Your task to perform on an android device: choose inbox layout in the gmail app Image 0: 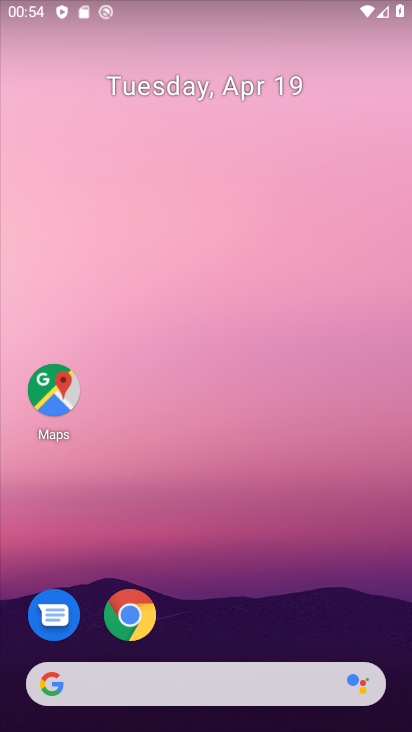
Step 0: press home button
Your task to perform on an android device: choose inbox layout in the gmail app Image 1: 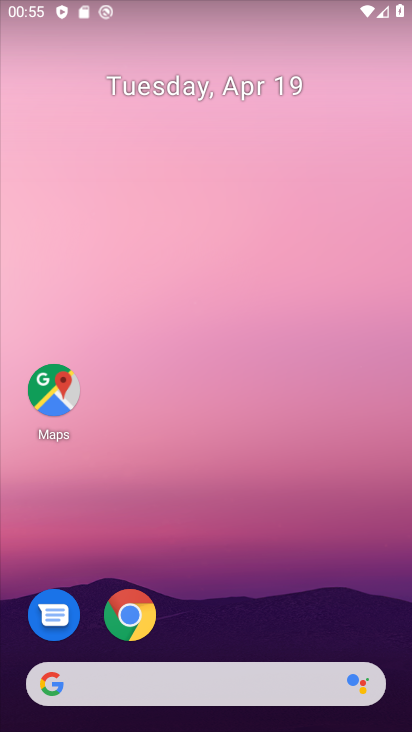
Step 1: drag from (255, 487) to (259, 308)
Your task to perform on an android device: choose inbox layout in the gmail app Image 2: 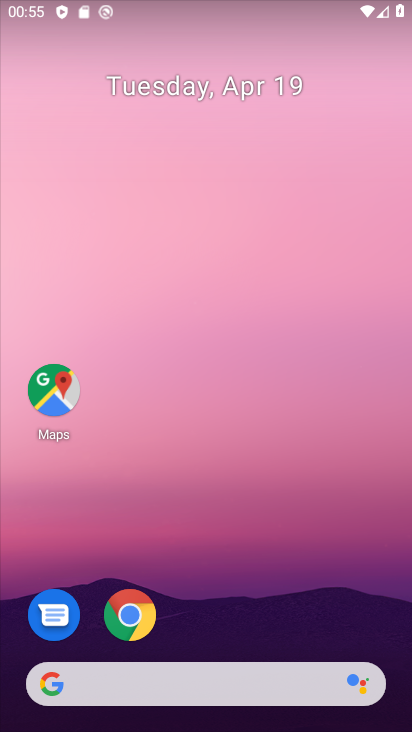
Step 2: drag from (261, 541) to (269, 155)
Your task to perform on an android device: choose inbox layout in the gmail app Image 3: 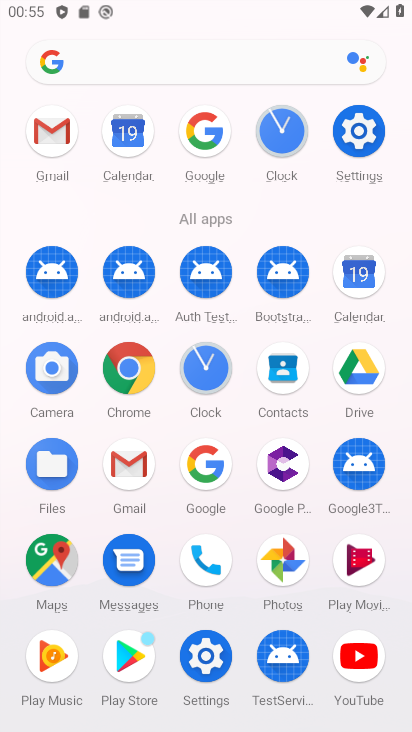
Step 3: click (136, 474)
Your task to perform on an android device: choose inbox layout in the gmail app Image 4: 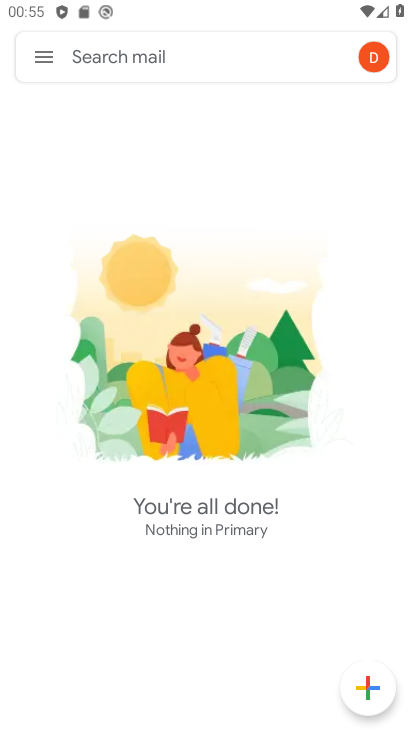
Step 4: click (36, 64)
Your task to perform on an android device: choose inbox layout in the gmail app Image 5: 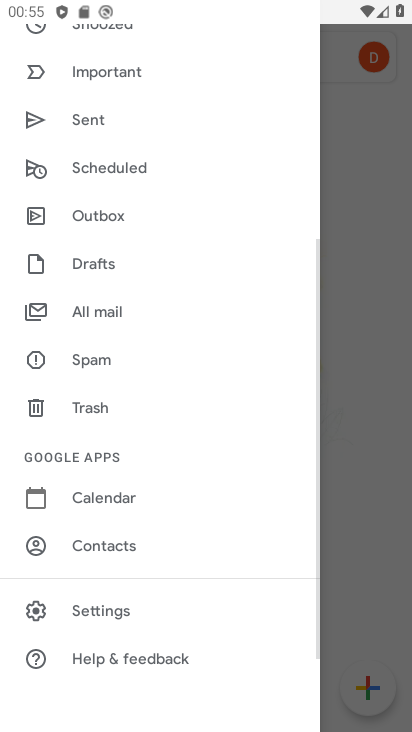
Step 5: drag from (127, 207) to (109, 603)
Your task to perform on an android device: choose inbox layout in the gmail app Image 6: 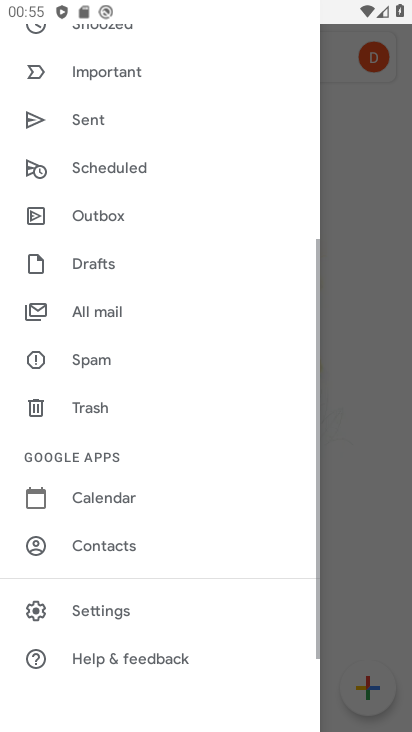
Step 6: drag from (173, 152) to (147, 518)
Your task to perform on an android device: choose inbox layout in the gmail app Image 7: 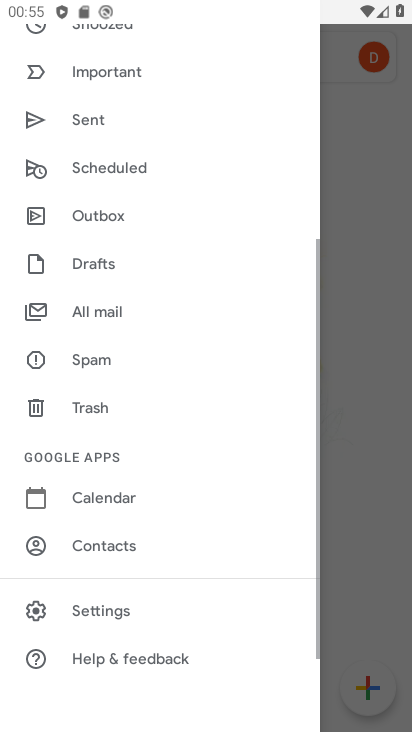
Step 7: drag from (105, 169) to (85, 537)
Your task to perform on an android device: choose inbox layout in the gmail app Image 8: 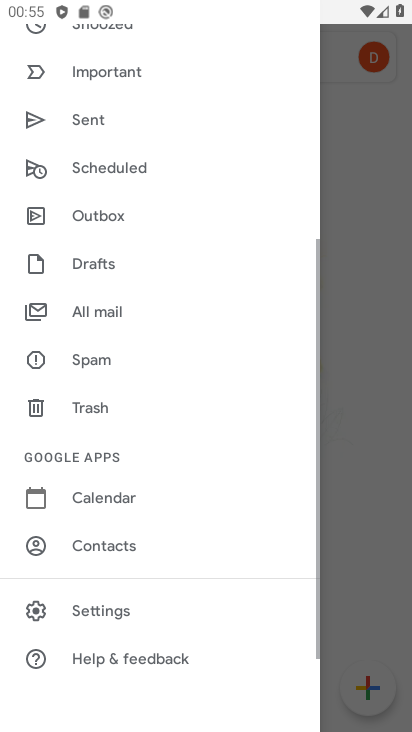
Step 8: drag from (226, 386) to (159, 688)
Your task to perform on an android device: choose inbox layout in the gmail app Image 9: 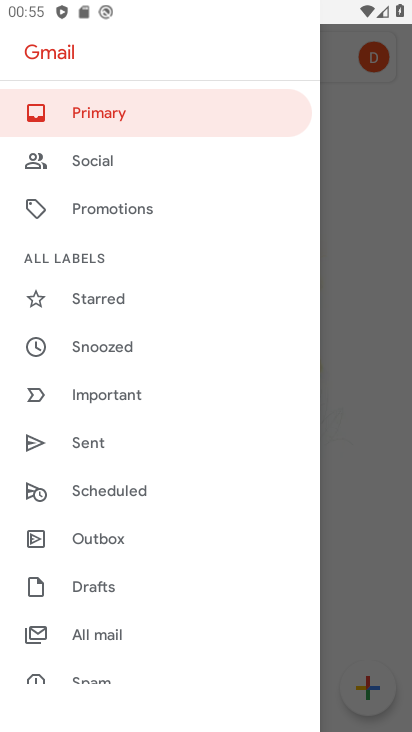
Step 9: drag from (157, 564) to (183, 133)
Your task to perform on an android device: choose inbox layout in the gmail app Image 10: 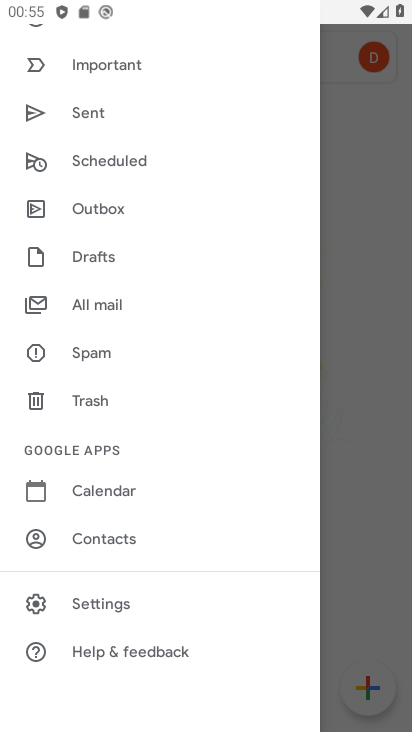
Step 10: click (85, 595)
Your task to perform on an android device: choose inbox layout in the gmail app Image 11: 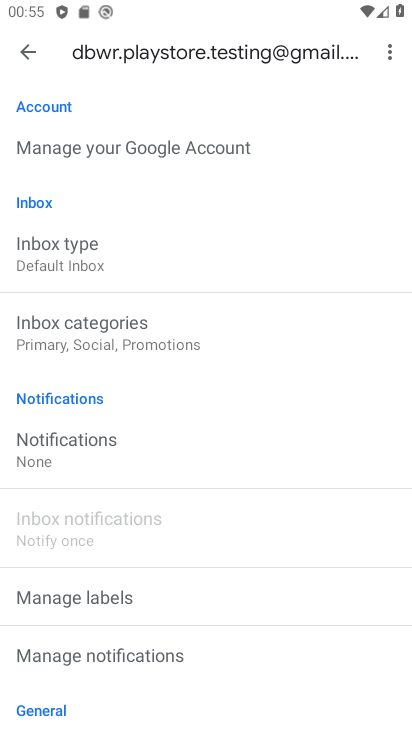
Step 11: click (117, 263)
Your task to perform on an android device: choose inbox layout in the gmail app Image 12: 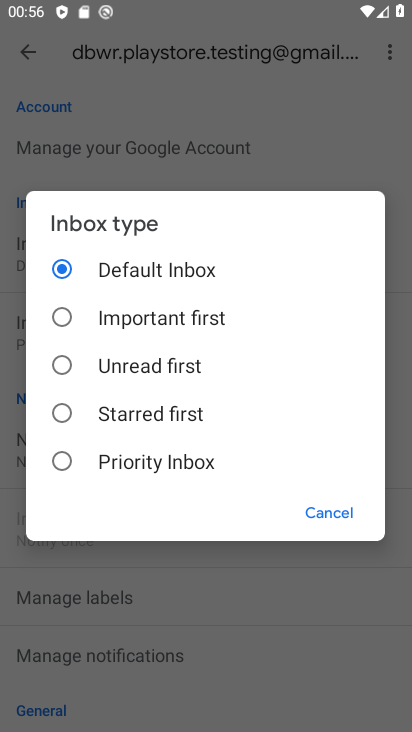
Step 12: click (146, 277)
Your task to perform on an android device: choose inbox layout in the gmail app Image 13: 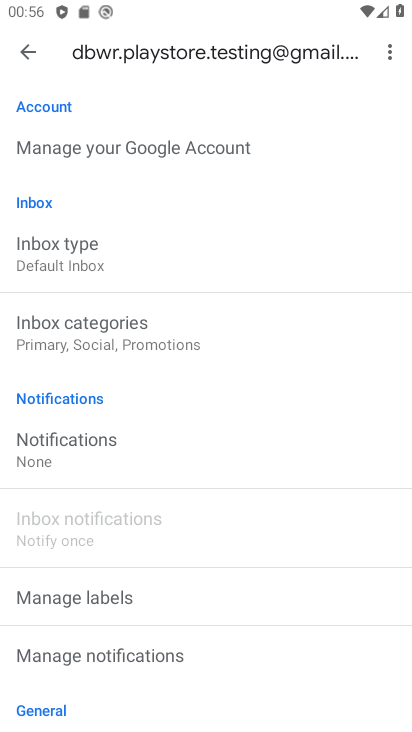
Step 13: task complete